Your task to perform on an android device: What's the weather today? Image 0: 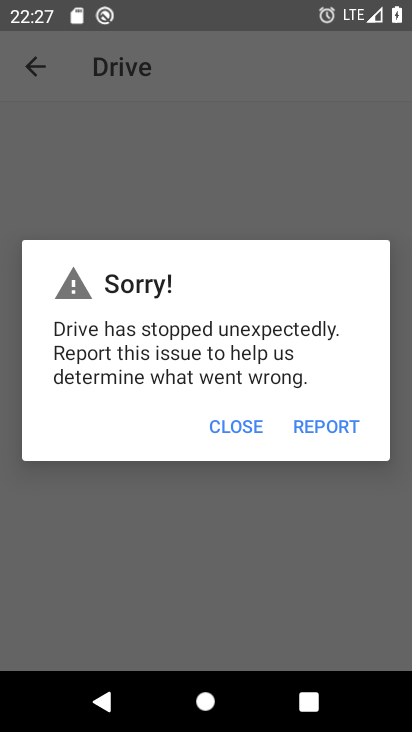
Step 0: click (250, 424)
Your task to perform on an android device: What's the weather today? Image 1: 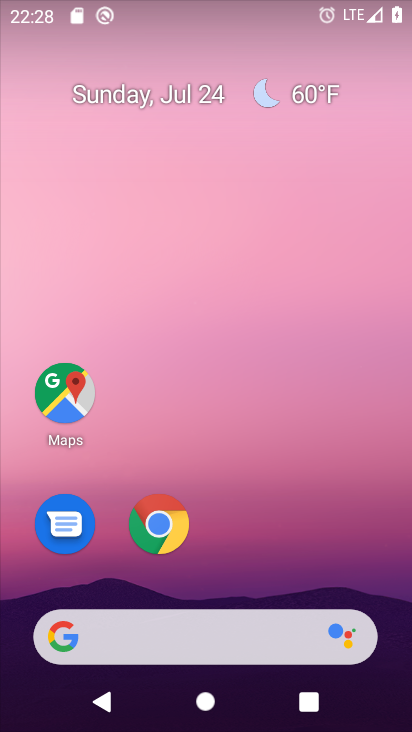
Step 1: click (203, 638)
Your task to perform on an android device: What's the weather today? Image 2: 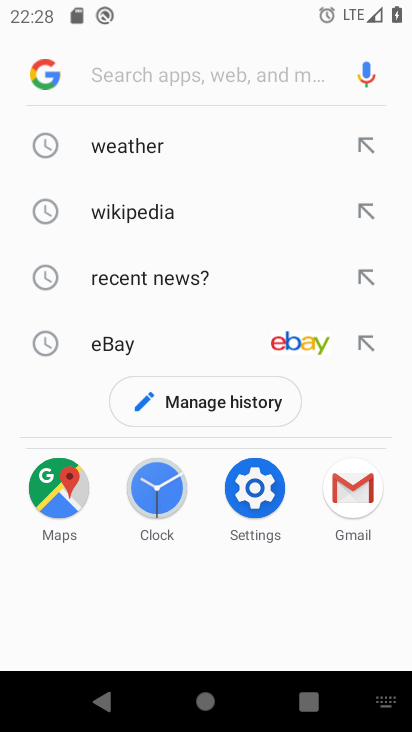
Step 2: click (145, 155)
Your task to perform on an android device: What's the weather today? Image 3: 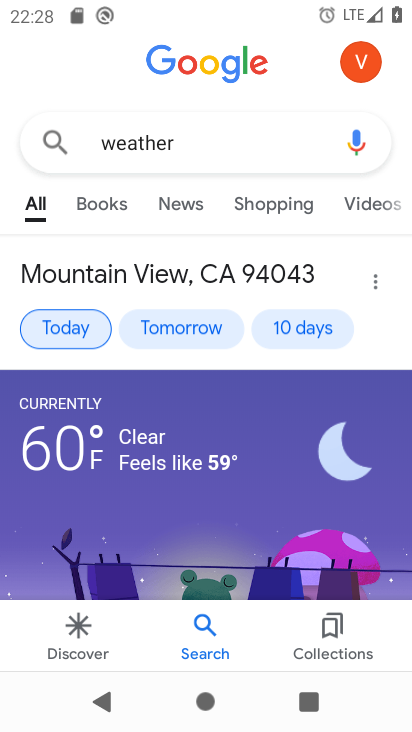
Step 3: click (95, 317)
Your task to perform on an android device: What's the weather today? Image 4: 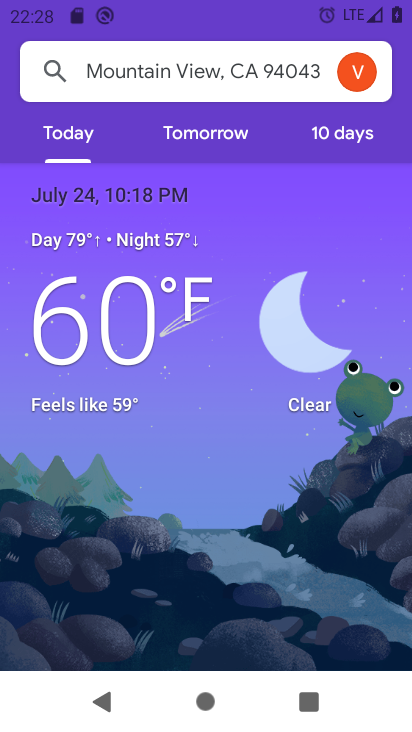
Step 4: task complete